Your task to perform on an android device: Show me productivity apps on the Play Store Image 0: 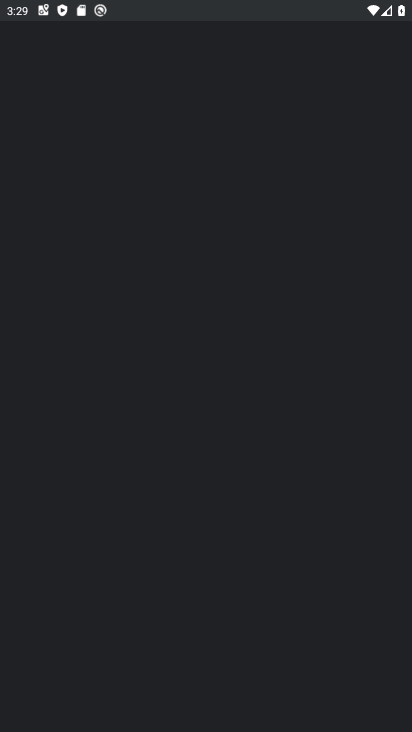
Step 0: drag from (242, 662) to (230, 354)
Your task to perform on an android device: Show me productivity apps on the Play Store Image 1: 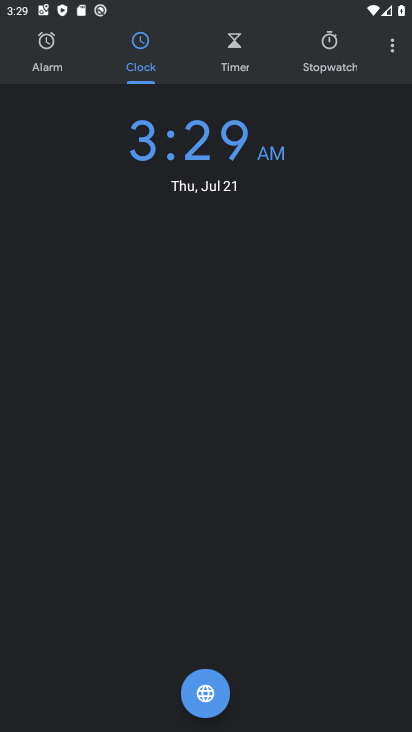
Step 1: press home button
Your task to perform on an android device: Show me productivity apps on the Play Store Image 2: 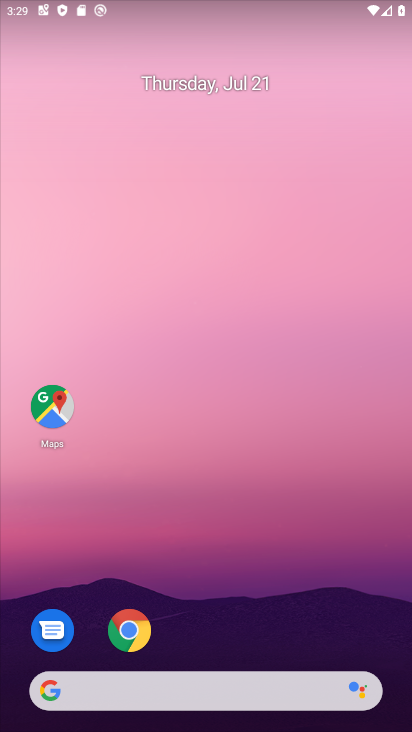
Step 2: drag from (218, 659) to (181, 38)
Your task to perform on an android device: Show me productivity apps on the Play Store Image 3: 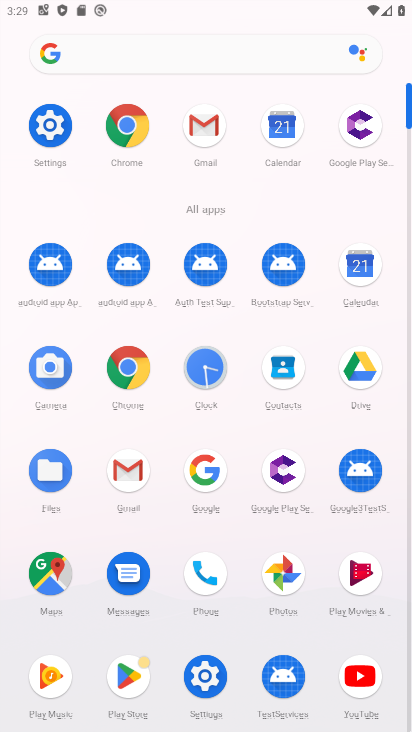
Step 3: click (130, 683)
Your task to perform on an android device: Show me productivity apps on the Play Store Image 4: 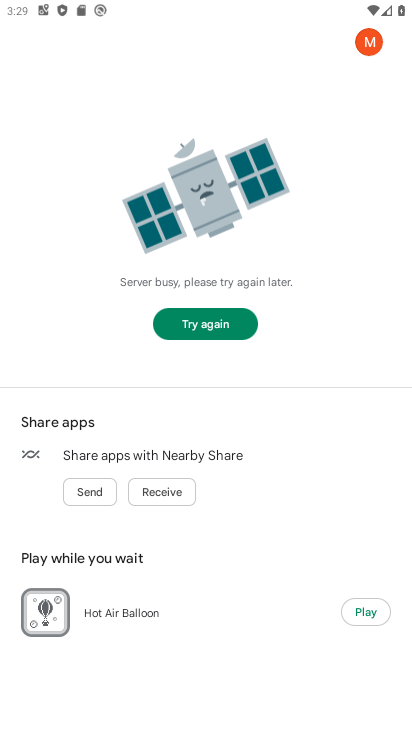
Step 4: click (198, 320)
Your task to perform on an android device: Show me productivity apps on the Play Store Image 5: 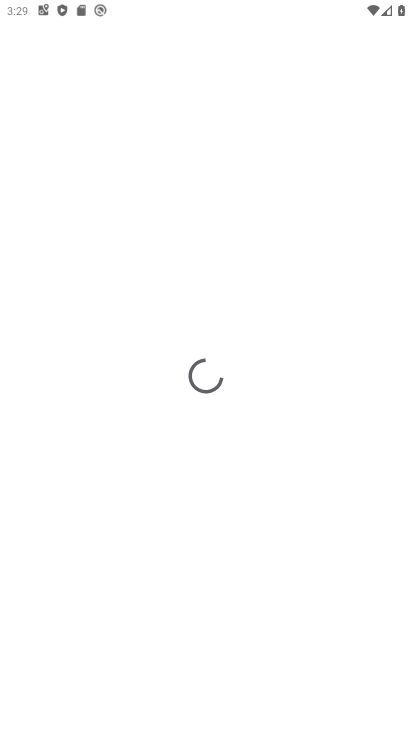
Step 5: task complete